Your task to perform on an android device: empty trash in the gmail app Image 0: 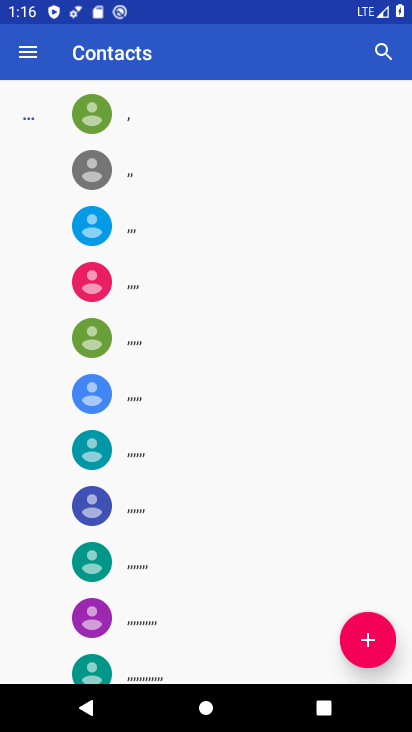
Step 0: press home button
Your task to perform on an android device: empty trash in the gmail app Image 1: 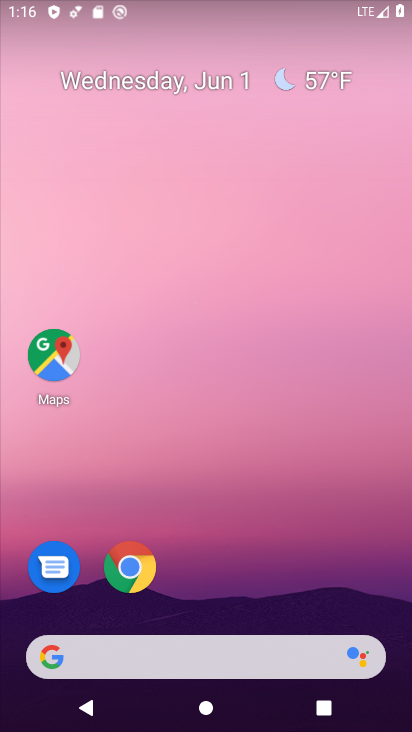
Step 1: drag from (313, 563) to (297, 68)
Your task to perform on an android device: empty trash in the gmail app Image 2: 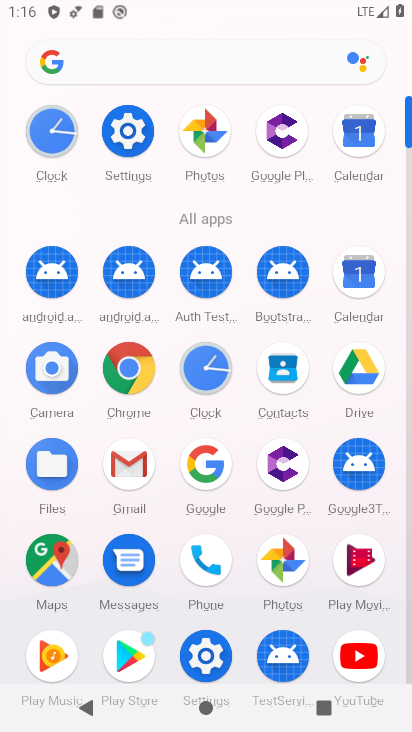
Step 2: click (119, 476)
Your task to perform on an android device: empty trash in the gmail app Image 3: 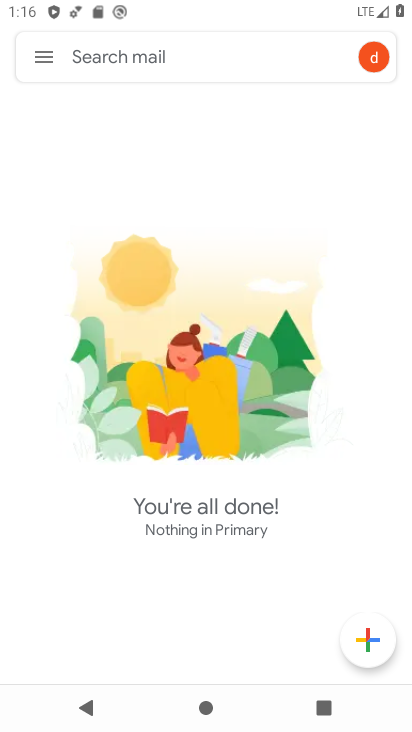
Step 3: click (44, 57)
Your task to perform on an android device: empty trash in the gmail app Image 4: 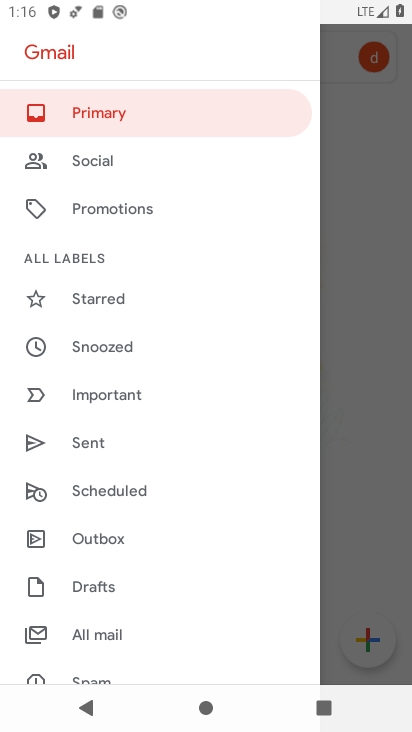
Step 4: drag from (216, 553) to (168, 31)
Your task to perform on an android device: empty trash in the gmail app Image 5: 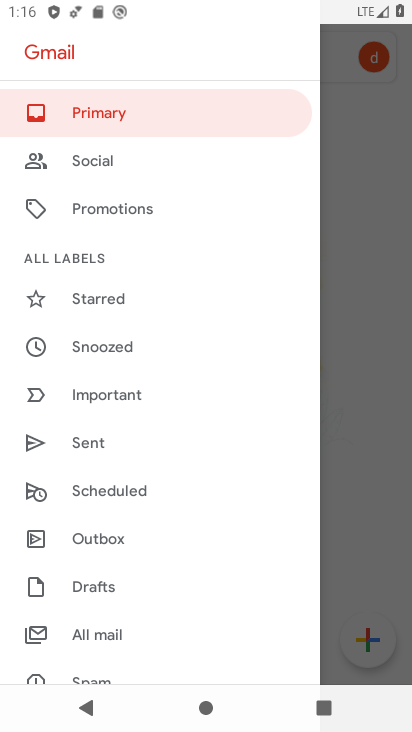
Step 5: drag from (156, 540) to (168, 37)
Your task to perform on an android device: empty trash in the gmail app Image 6: 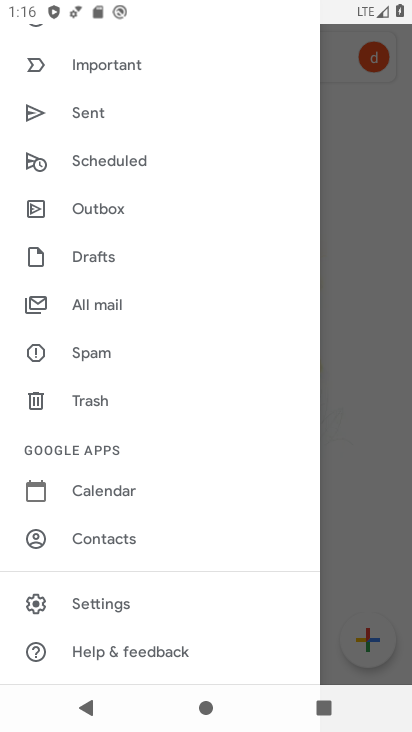
Step 6: click (90, 402)
Your task to perform on an android device: empty trash in the gmail app Image 7: 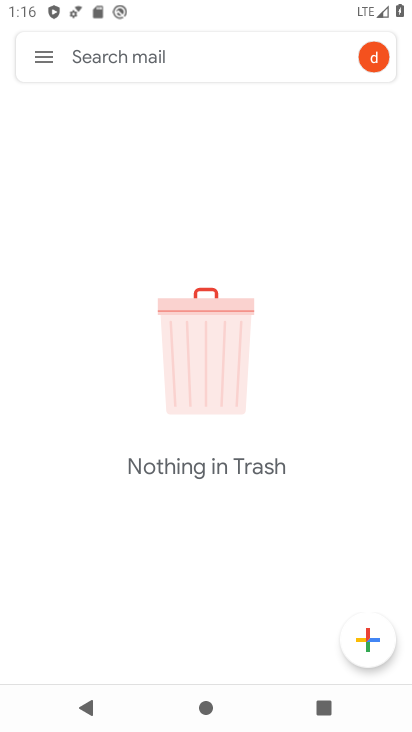
Step 7: task complete